Your task to perform on an android device: Toggle the flashlight Image 0: 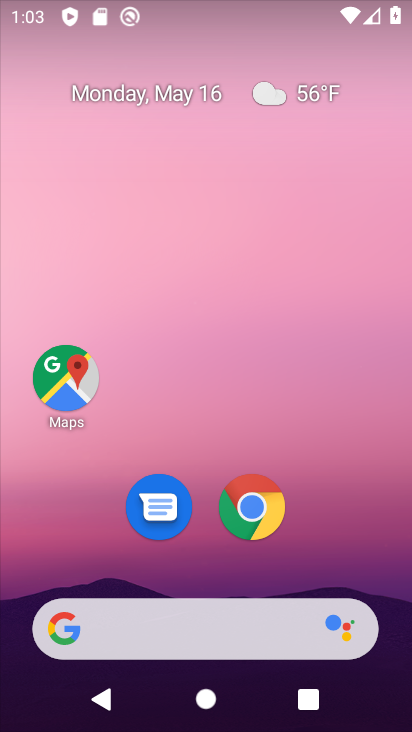
Step 0: drag from (207, 537) to (173, 177)
Your task to perform on an android device: Toggle the flashlight Image 1: 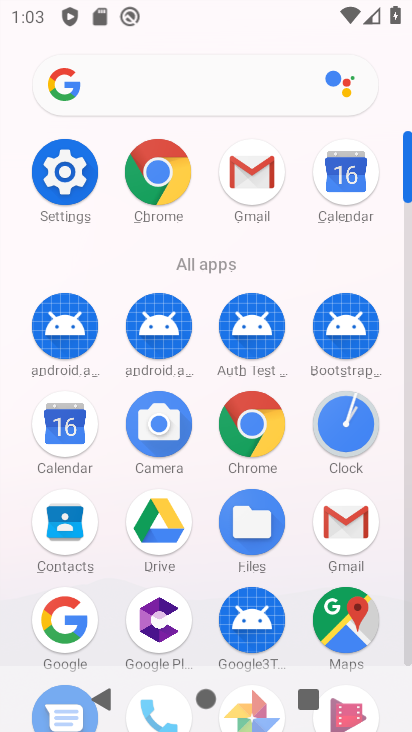
Step 1: click (54, 176)
Your task to perform on an android device: Toggle the flashlight Image 2: 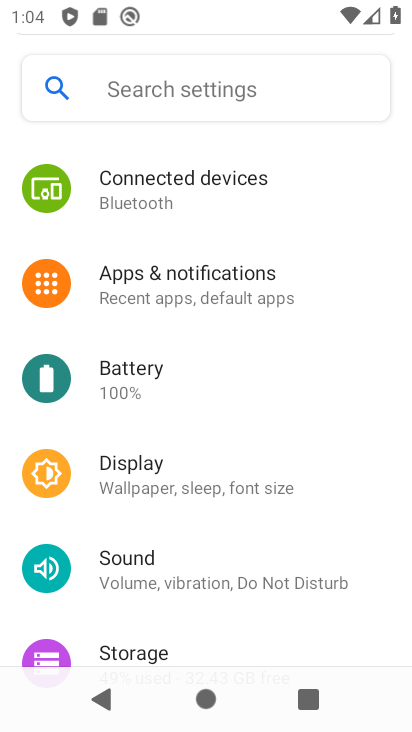
Step 2: task complete